Your task to perform on an android device: Go to Android settings Image 0: 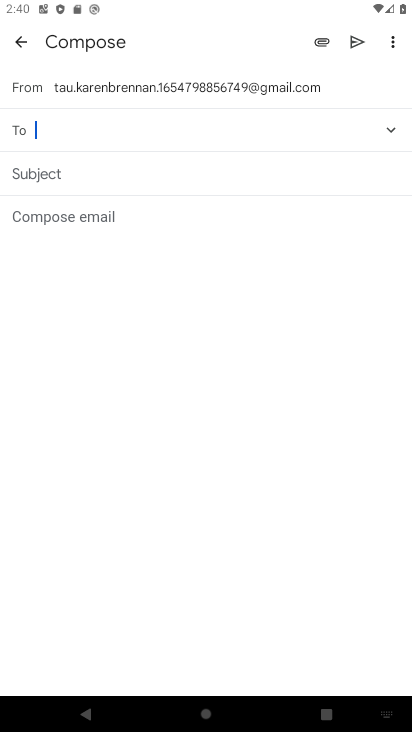
Step 0: press home button
Your task to perform on an android device: Go to Android settings Image 1: 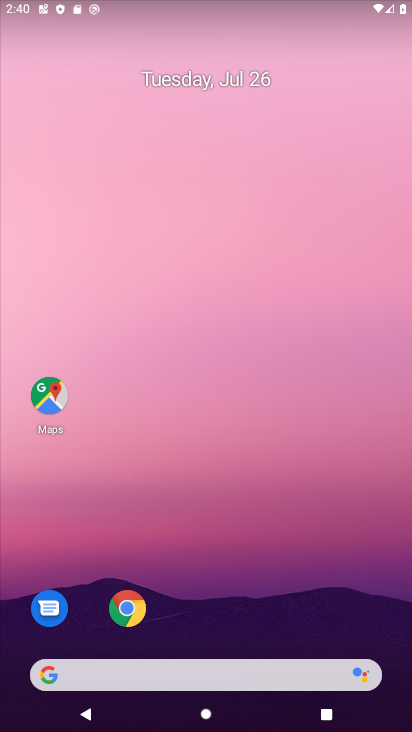
Step 1: drag from (211, 645) to (208, 86)
Your task to perform on an android device: Go to Android settings Image 2: 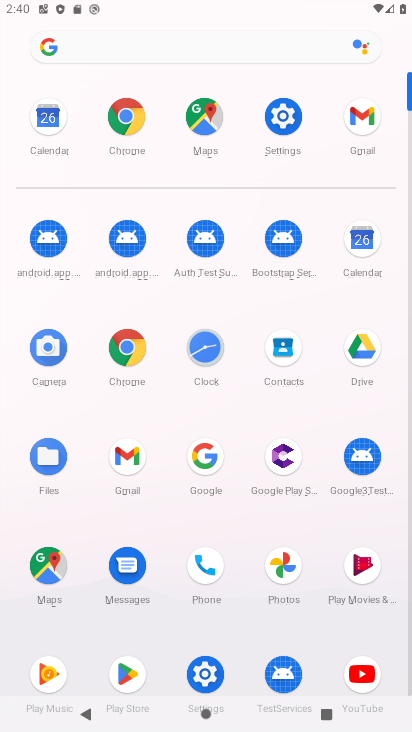
Step 2: click (268, 123)
Your task to perform on an android device: Go to Android settings Image 3: 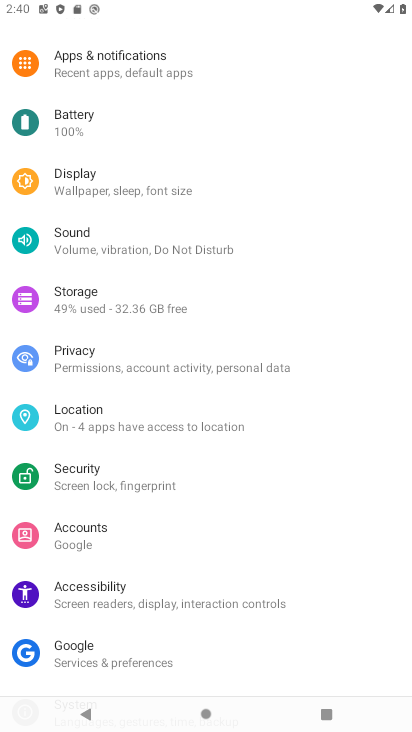
Step 3: drag from (121, 610) to (118, 181)
Your task to perform on an android device: Go to Android settings Image 4: 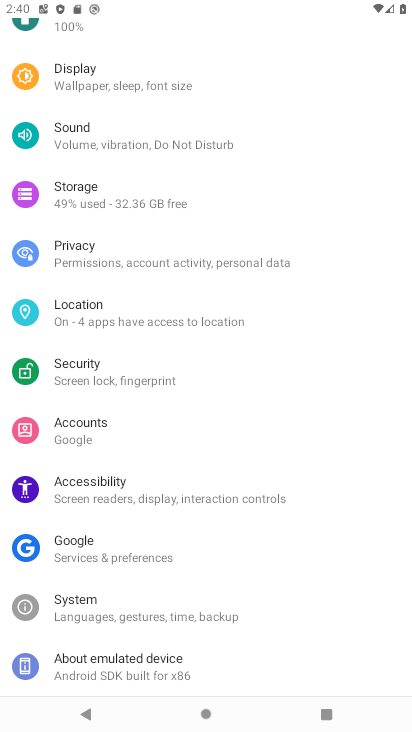
Step 4: click (113, 659)
Your task to perform on an android device: Go to Android settings Image 5: 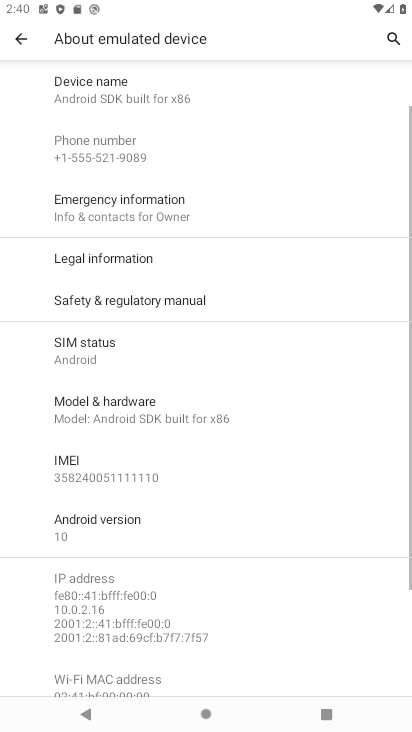
Step 5: task complete